Your task to perform on an android device: turn pop-ups on in chrome Image 0: 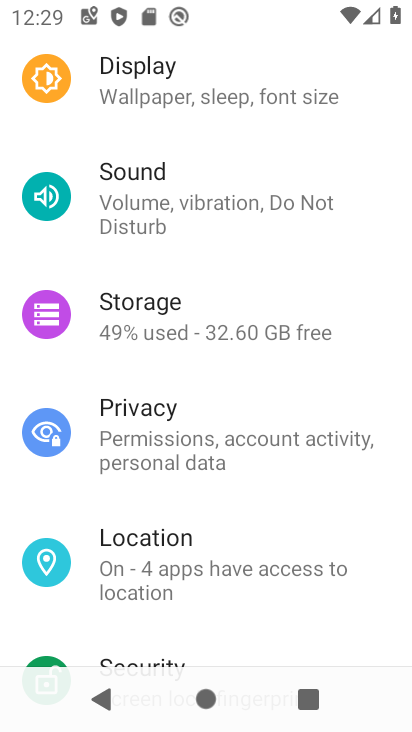
Step 0: press home button
Your task to perform on an android device: turn pop-ups on in chrome Image 1: 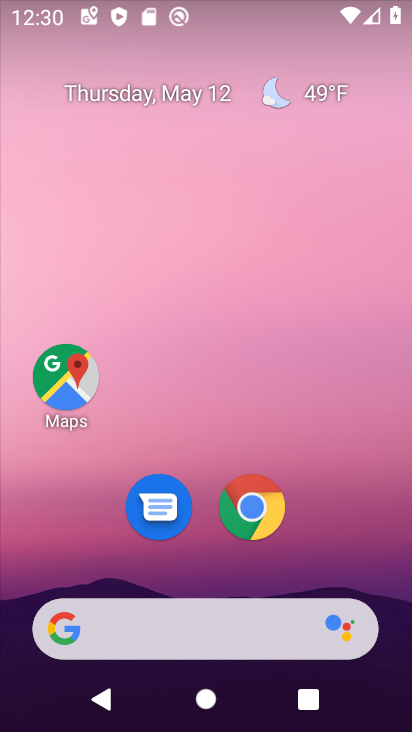
Step 1: click (240, 515)
Your task to perform on an android device: turn pop-ups on in chrome Image 2: 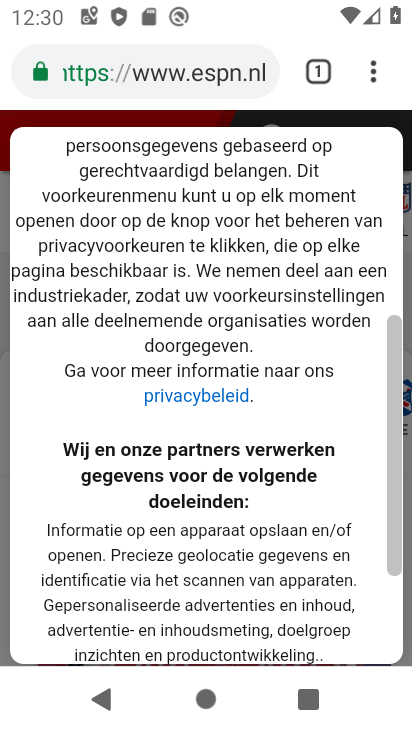
Step 2: click (369, 81)
Your task to perform on an android device: turn pop-ups on in chrome Image 3: 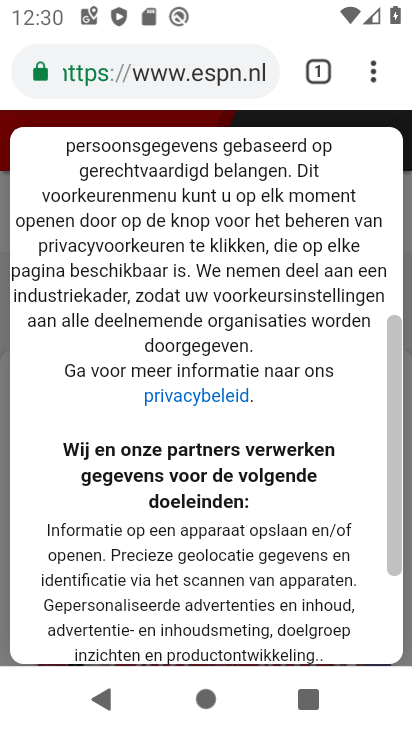
Step 3: click (378, 75)
Your task to perform on an android device: turn pop-ups on in chrome Image 4: 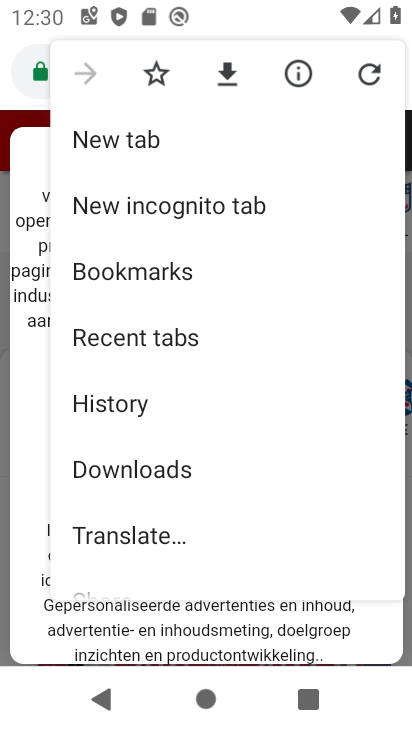
Step 4: drag from (196, 534) to (168, 133)
Your task to perform on an android device: turn pop-ups on in chrome Image 5: 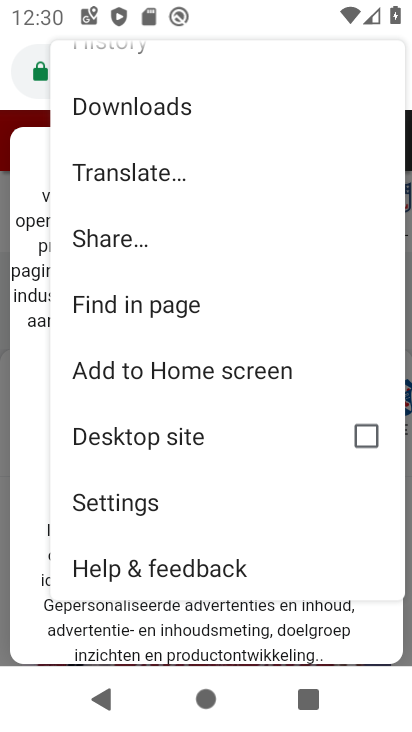
Step 5: click (148, 513)
Your task to perform on an android device: turn pop-ups on in chrome Image 6: 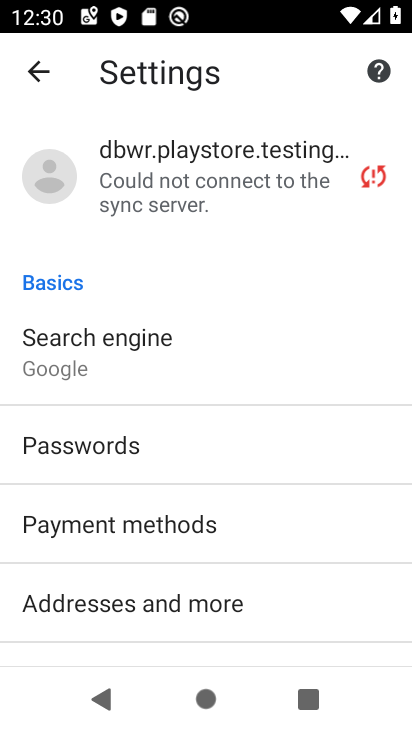
Step 6: drag from (187, 605) to (241, 259)
Your task to perform on an android device: turn pop-ups on in chrome Image 7: 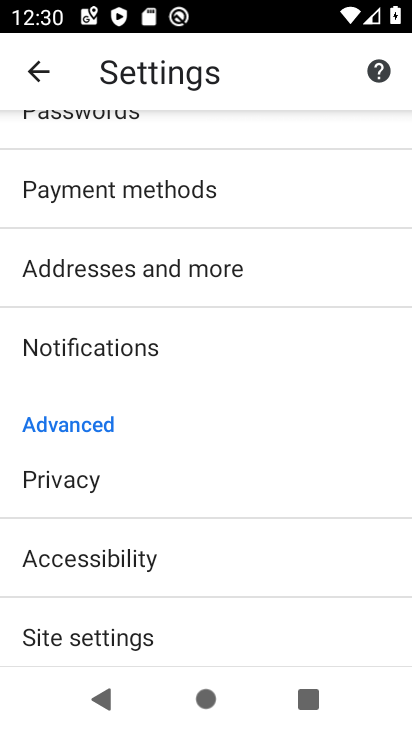
Step 7: drag from (193, 611) to (175, 239)
Your task to perform on an android device: turn pop-ups on in chrome Image 8: 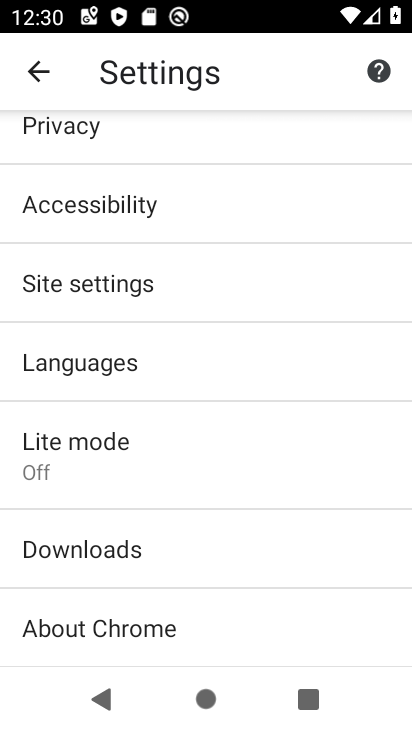
Step 8: click (169, 278)
Your task to perform on an android device: turn pop-ups on in chrome Image 9: 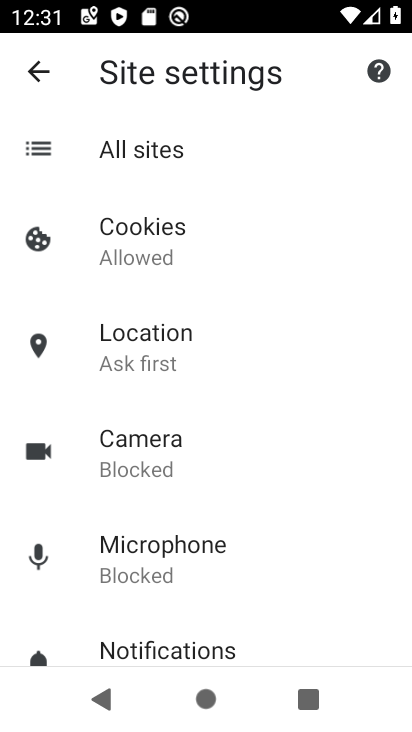
Step 9: drag from (162, 604) to (143, 388)
Your task to perform on an android device: turn pop-ups on in chrome Image 10: 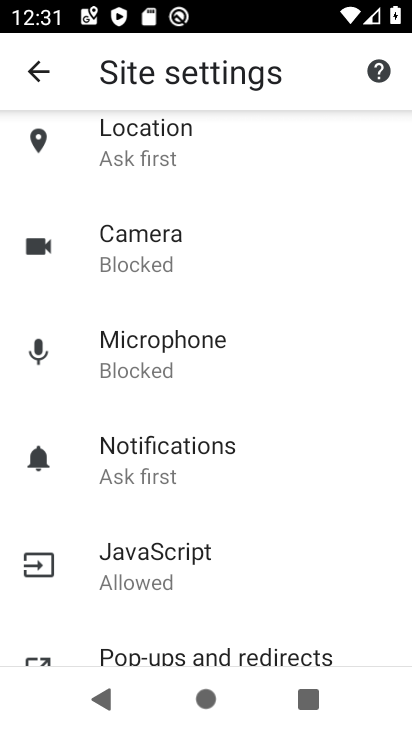
Step 10: drag from (163, 605) to (160, 299)
Your task to perform on an android device: turn pop-ups on in chrome Image 11: 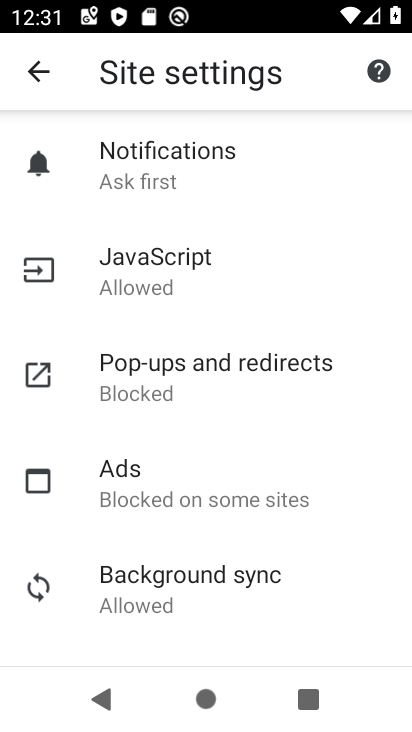
Step 11: click (207, 386)
Your task to perform on an android device: turn pop-ups on in chrome Image 12: 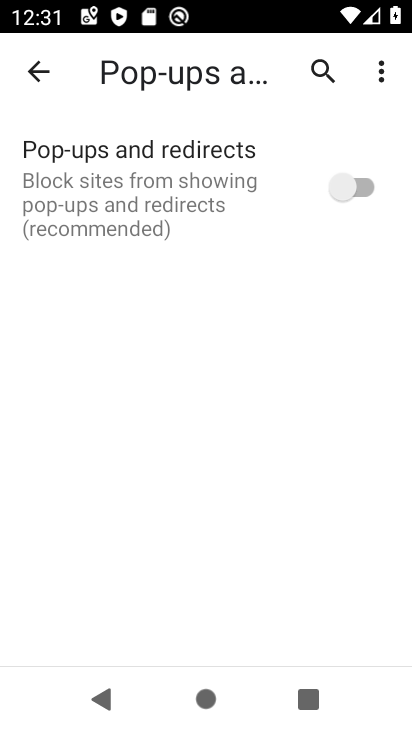
Step 12: click (368, 192)
Your task to perform on an android device: turn pop-ups on in chrome Image 13: 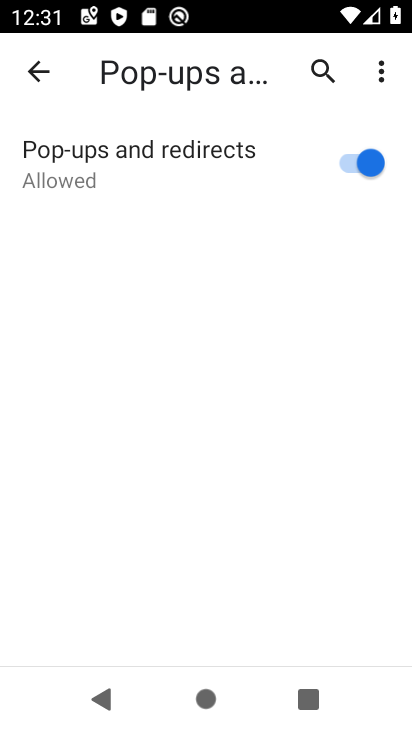
Step 13: task complete